Your task to perform on an android device: See recent photos Image 0: 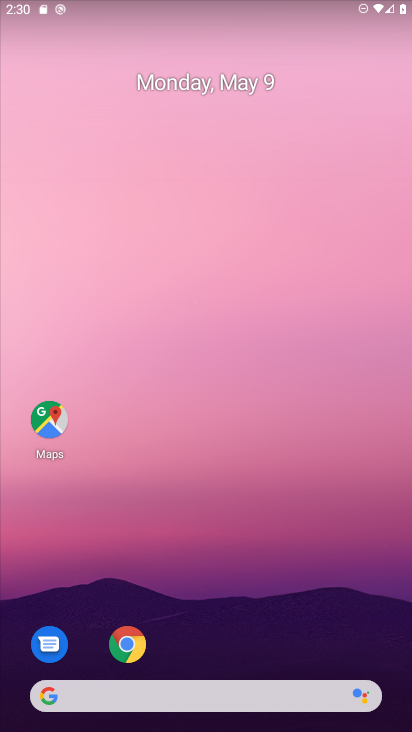
Step 0: drag from (245, 637) to (208, 154)
Your task to perform on an android device: See recent photos Image 1: 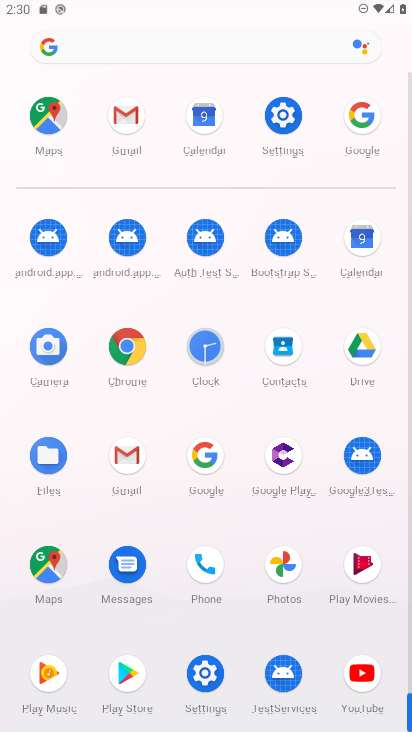
Step 1: click (293, 578)
Your task to perform on an android device: See recent photos Image 2: 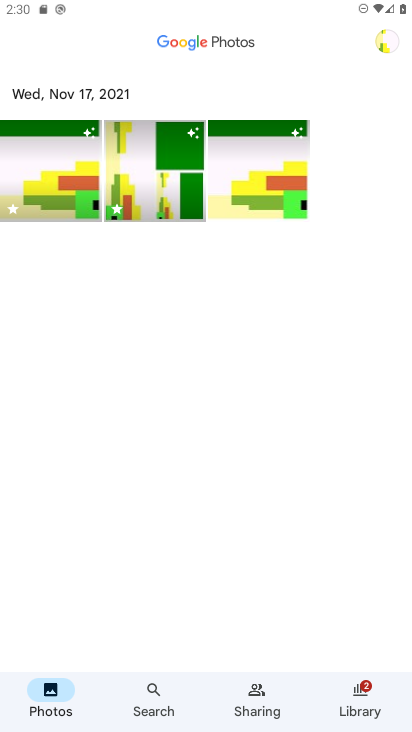
Step 2: click (372, 713)
Your task to perform on an android device: See recent photos Image 3: 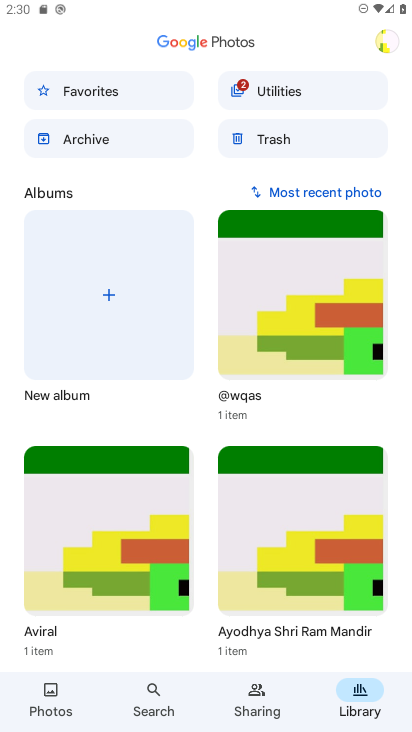
Step 3: task complete